Your task to perform on an android device: check battery use Image 0: 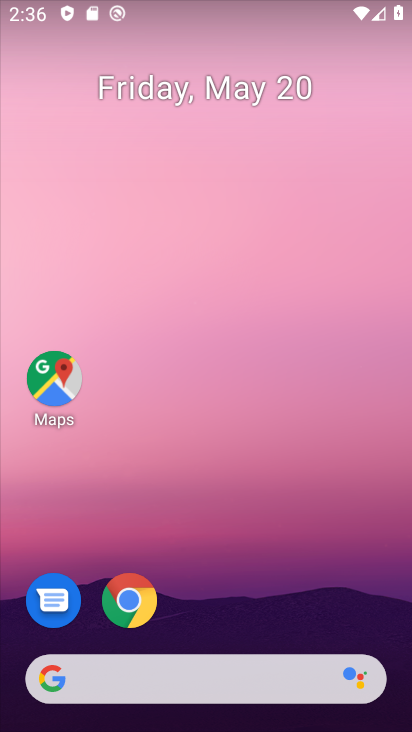
Step 0: drag from (216, 547) to (157, 11)
Your task to perform on an android device: check battery use Image 1: 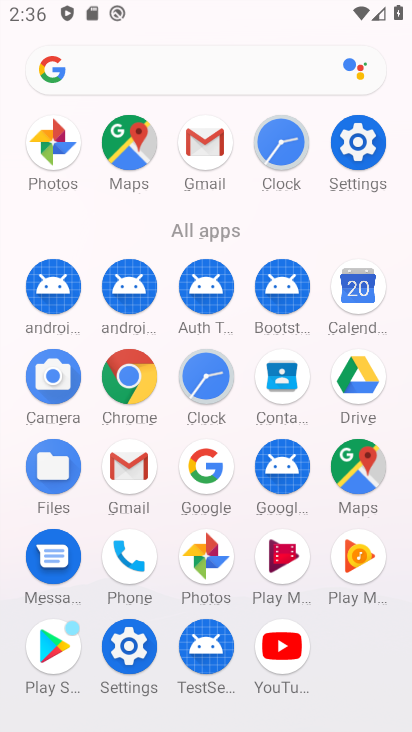
Step 1: click (361, 141)
Your task to perform on an android device: check battery use Image 2: 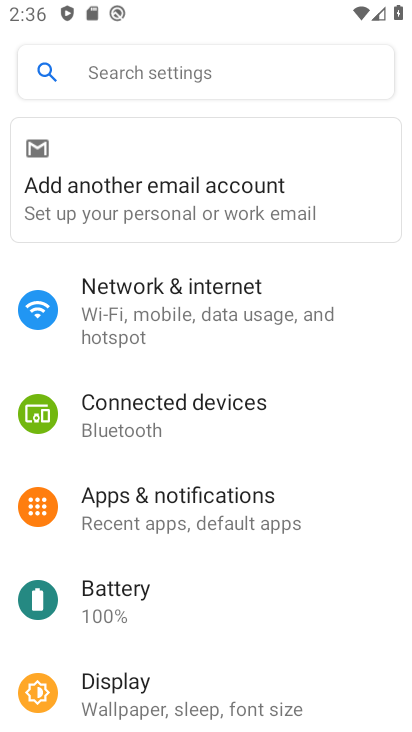
Step 2: click (141, 584)
Your task to perform on an android device: check battery use Image 3: 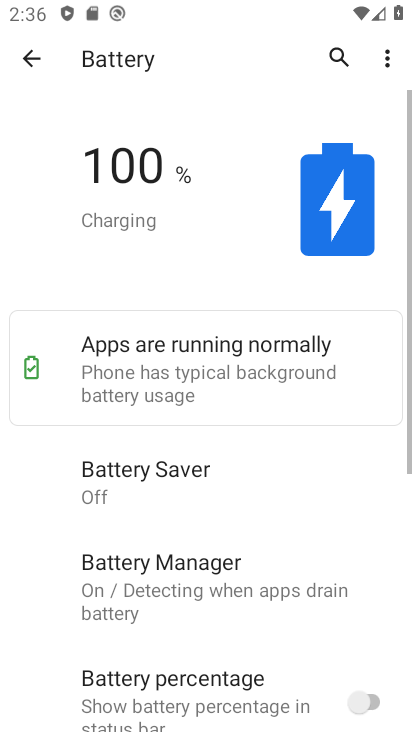
Step 3: task complete